Your task to perform on an android device: read, delete, or share a saved page in the chrome app Image 0: 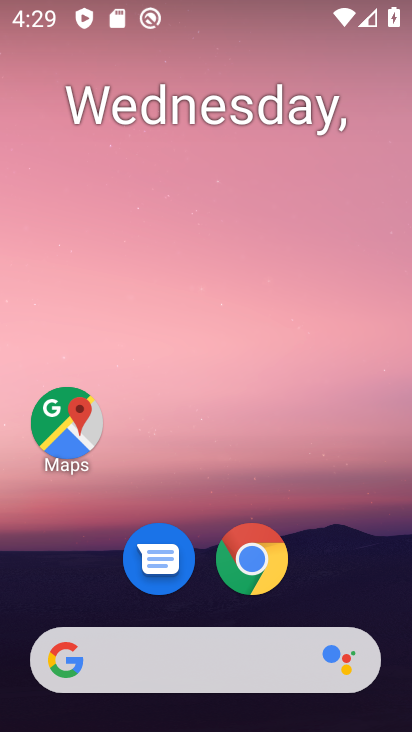
Step 0: click (269, 558)
Your task to perform on an android device: read, delete, or share a saved page in the chrome app Image 1: 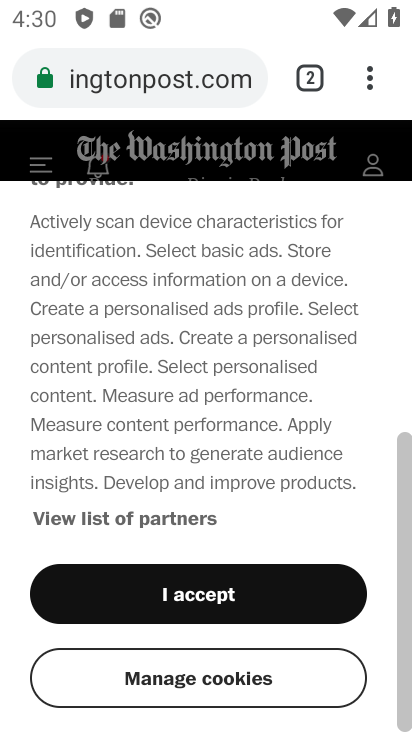
Step 1: click (370, 72)
Your task to perform on an android device: read, delete, or share a saved page in the chrome app Image 2: 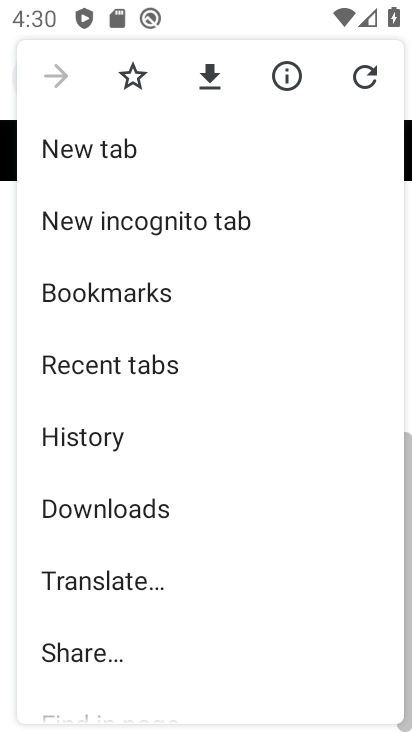
Step 2: click (170, 510)
Your task to perform on an android device: read, delete, or share a saved page in the chrome app Image 3: 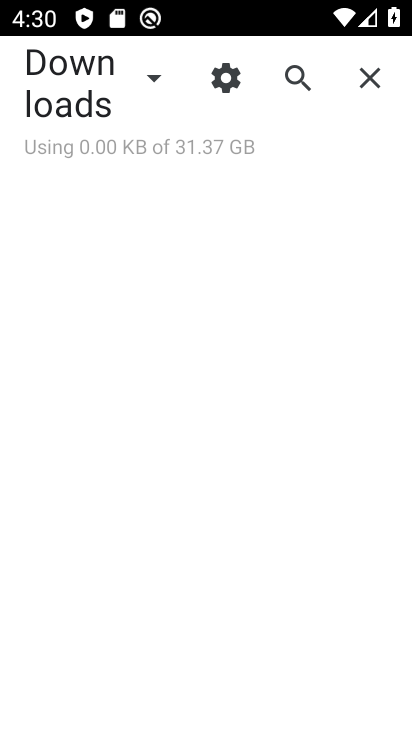
Step 3: click (153, 82)
Your task to perform on an android device: read, delete, or share a saved page in the chrome app Image 4: 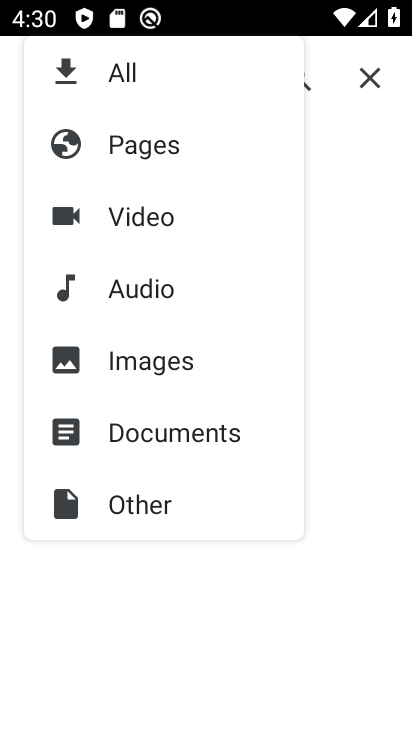
Step 4: click (165, 150)
Your task to perform on an android device: read, delete, or share a saved page in the chrome app Image 5: 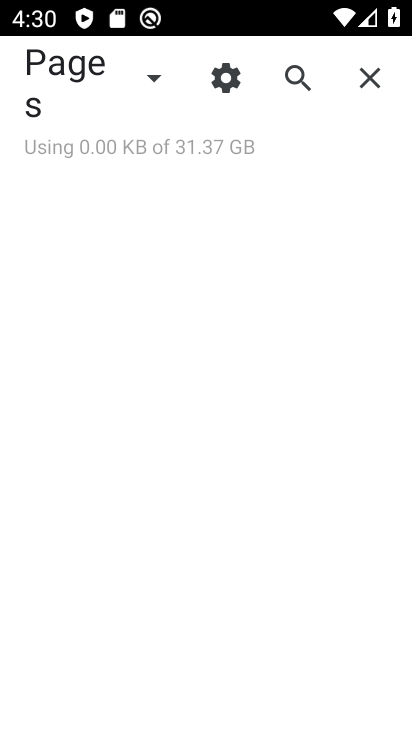
Step 5: task complete